Your task to perform on an android device: What's the top post on reddit today? Image 0: 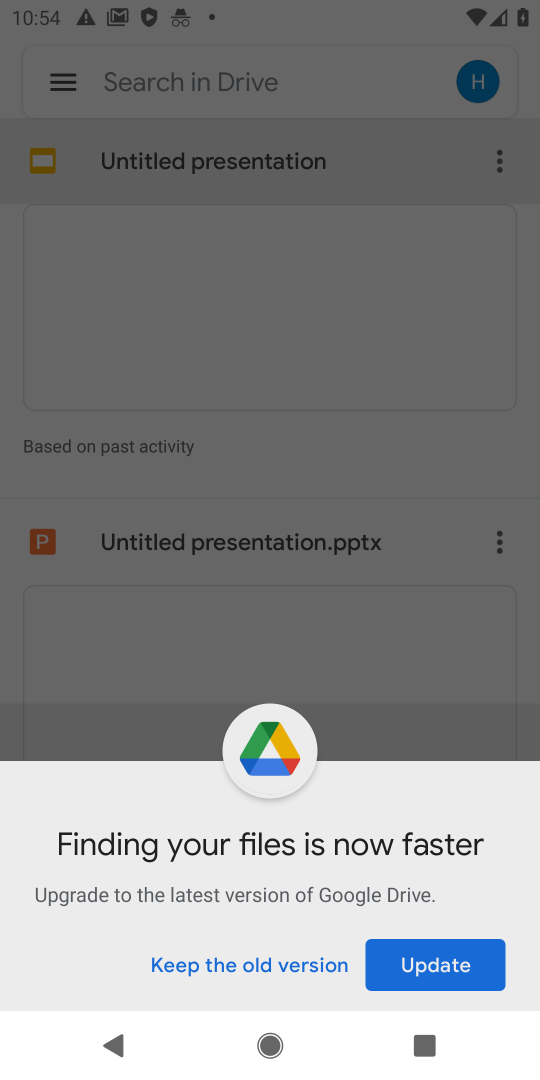
Step 0: press home button
Your task to perform on an android device: What's the top post on reddit today? Image 1: 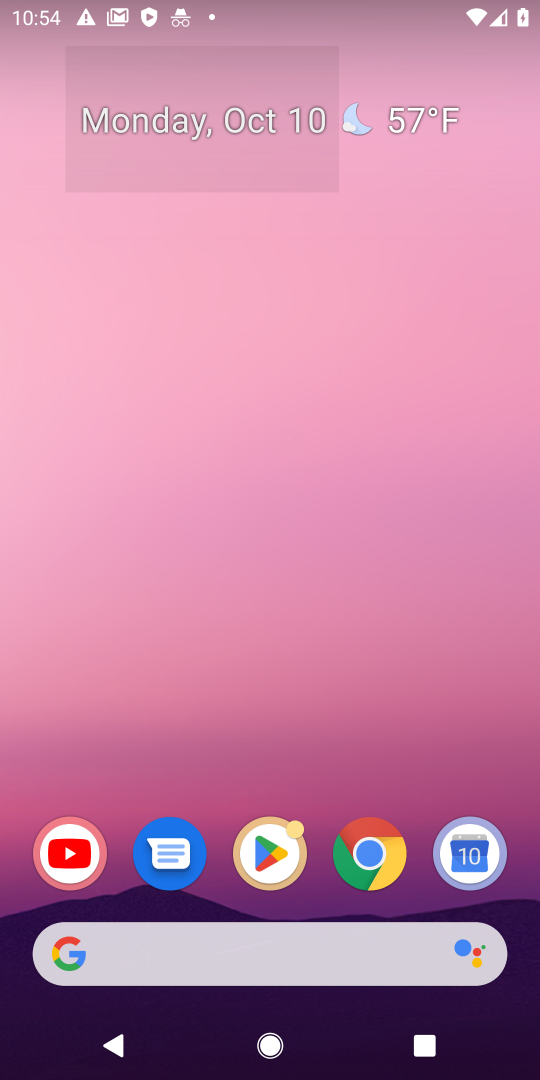
Step 1: click (299, 953)
Your task to perform on an android device: What's the top post on reddit today? Image 2: 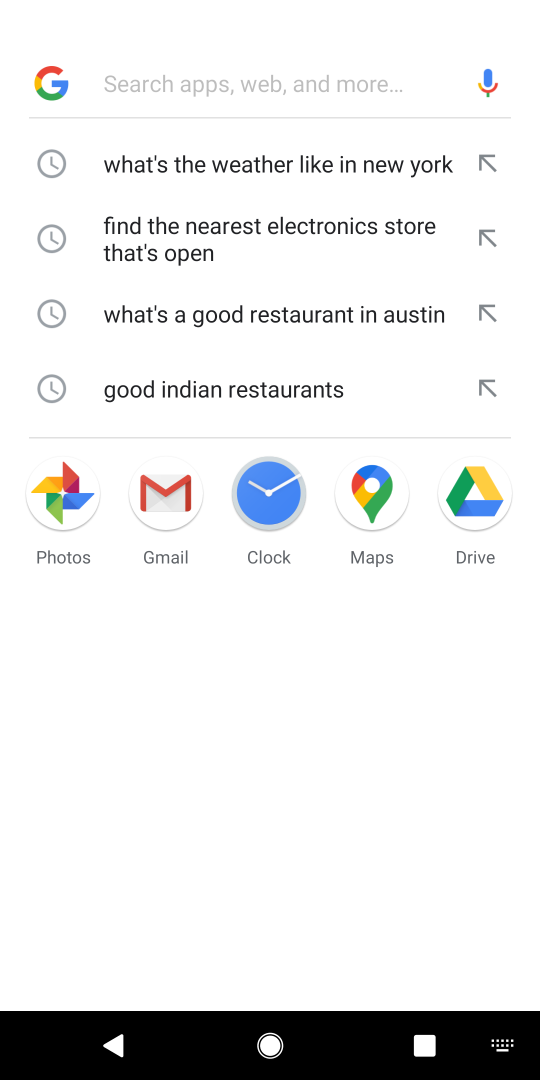
Step 2: type "What's the top post on reddit today"
Your task to perform on an android device: What's the top post on reddit today? Image 3: 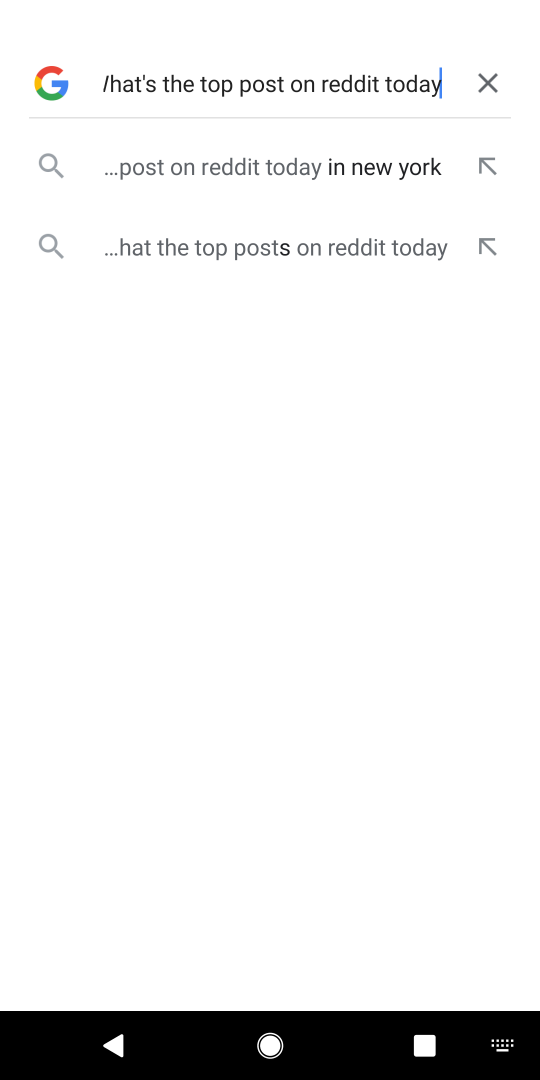
Step 3: press enter
Your task to perform on an android device: What's the top post on reddit today? Image 4: 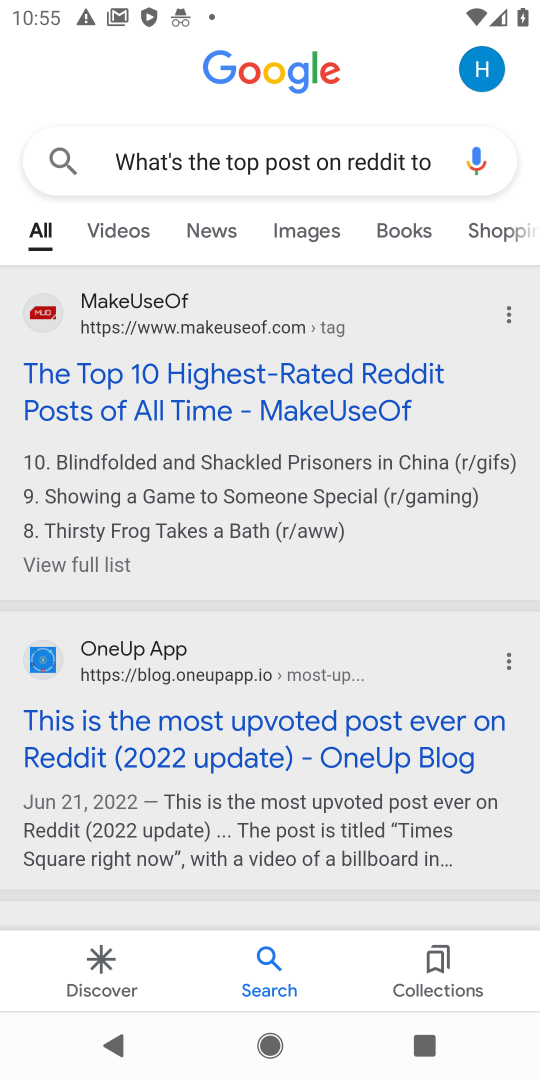
Step 4: click (353, 390)
Your task to perform on an android device: What's the top post on reddit today? Image 5: 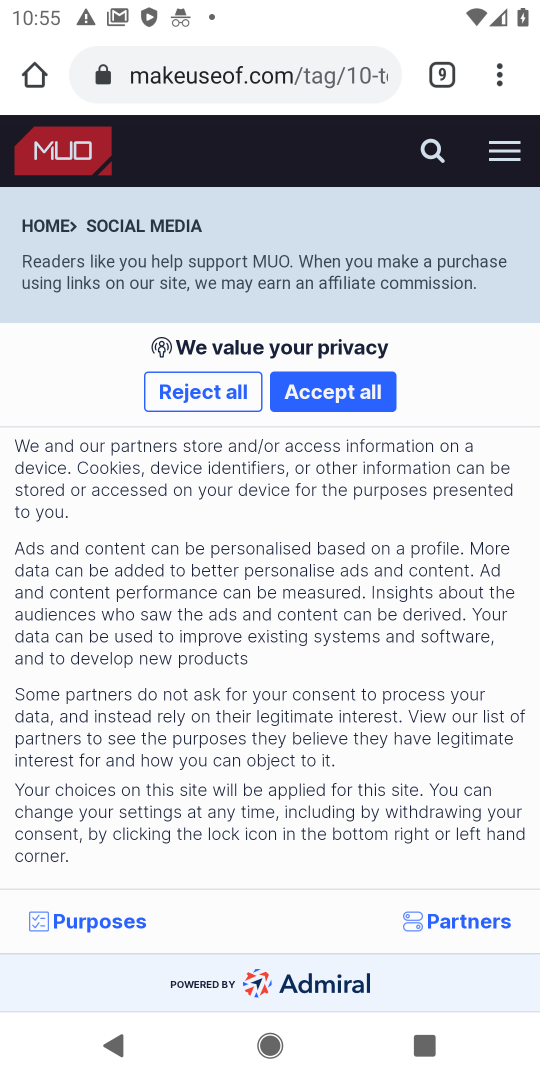
Step 5: click (353, 390)
Your task to perform on an android device: What's the top post on reddit today? Image 6: 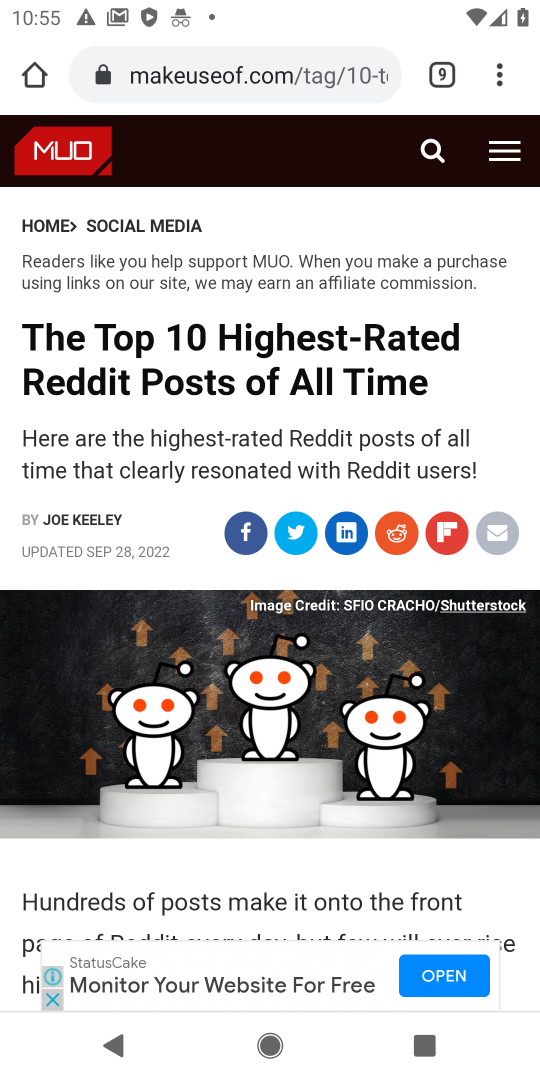
Step 6: task complete